Your task to perform on an android device: Open Chrome and go to the settings page Image 0: 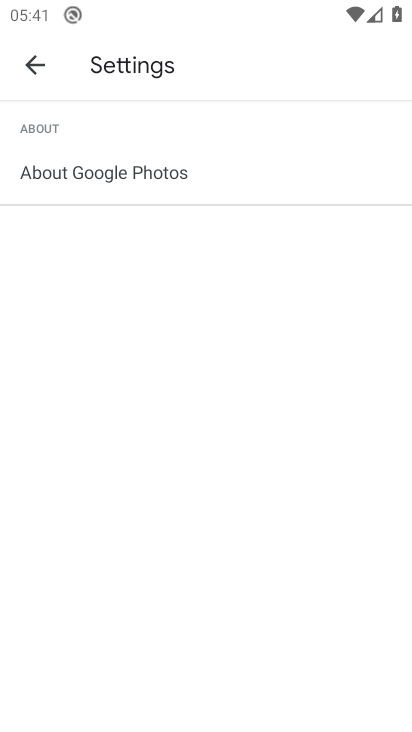
Step 0: drag from (296, 682) to (235, 181)
Your task to perform on an android device: Open Chrome and go to the settings page Image 1: 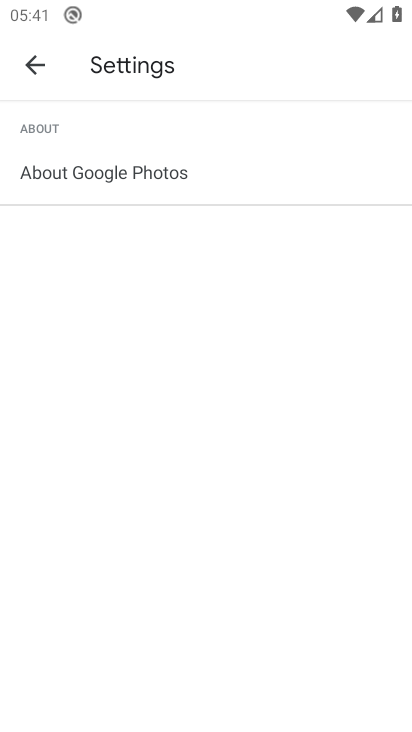
Step 1: click (42, 57)
Your task to perform on an android device: Open Chrome and go to the settings page Image 2: 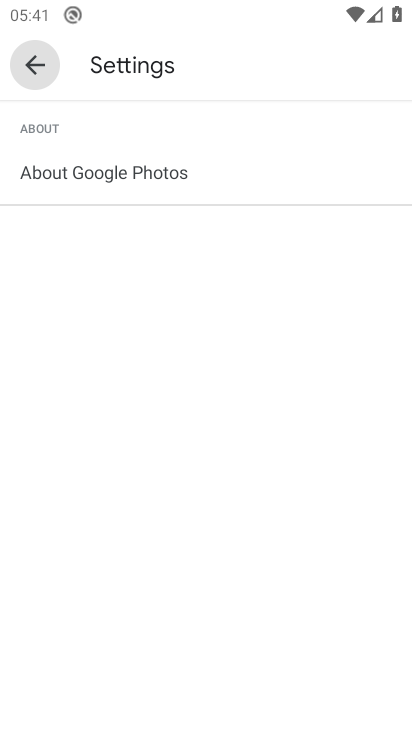
Step 2: click (34, 72)
Your task to perform on an android device: Open Chrome and go to the settings page Image 3: 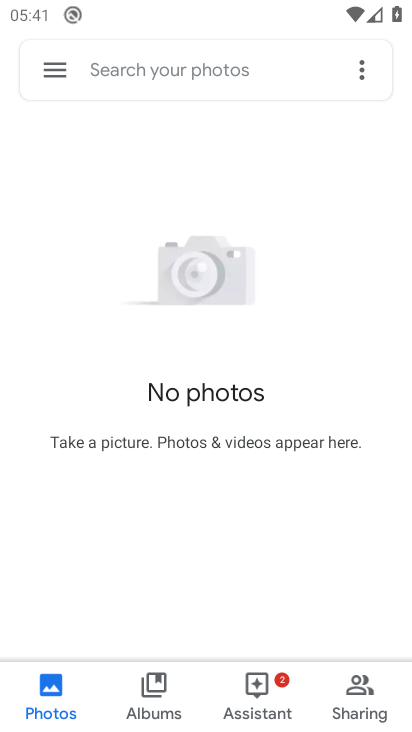
Step 3: press back button
Your task to perform on an android device: Open Chrome and go to the settings page Image 4: 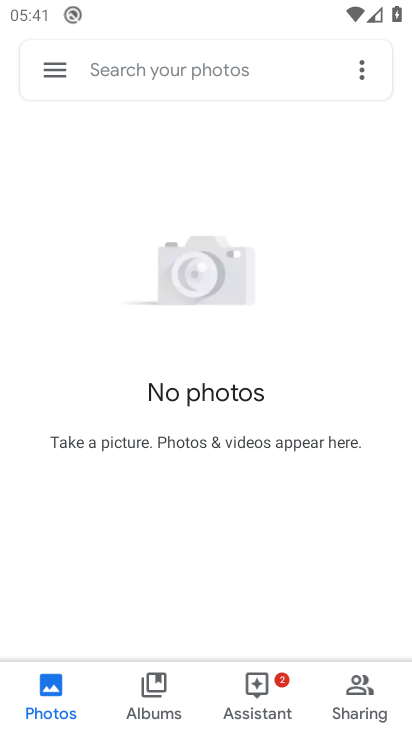
Step 4: press back button
Your task to perform on an android device: Open Chrome and go to the settings page Image 5: 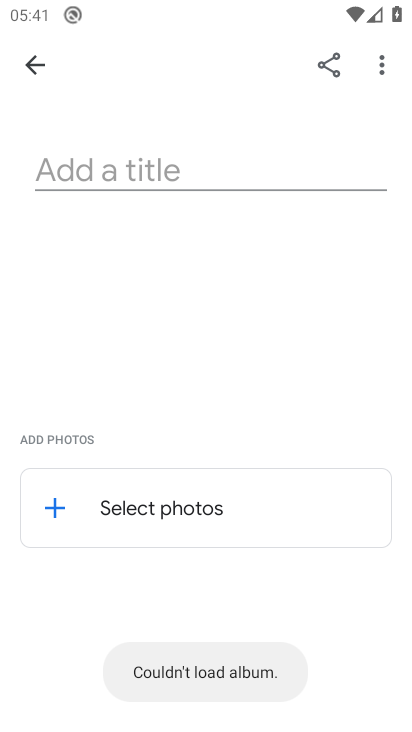
Step 5: press back button
Your task to perform on an android device: Open Chrome and go to the settings page Image 6: 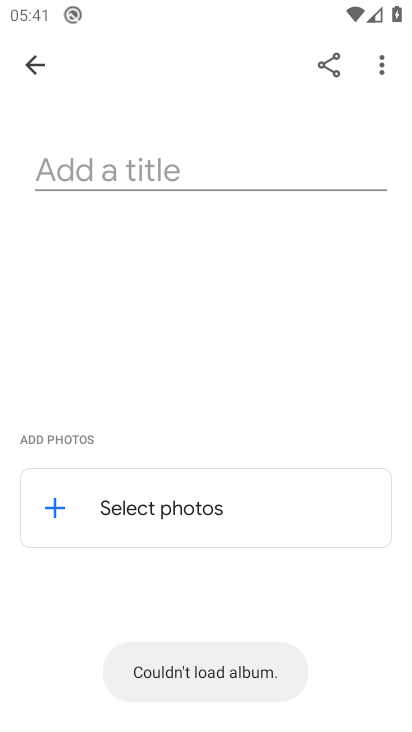
Step 6: press home button
Your task to perform on an android device: Open Chrome and go to the settings page Image 7: 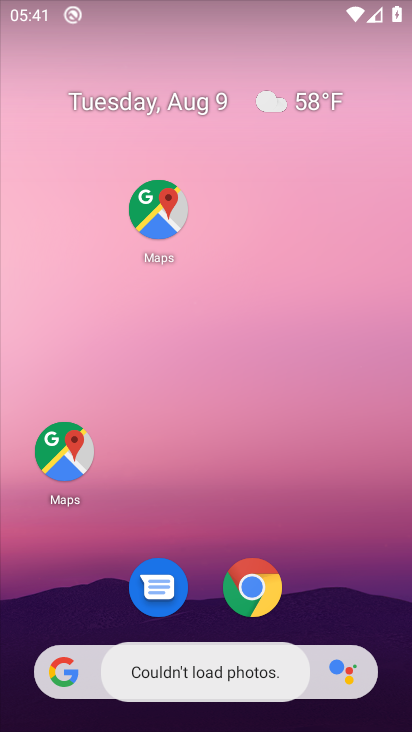
Step 7: drag from (126, 216) to (103, 19)
Your task to perform on an android device: Open Chrome and go to the settings page Image 8: 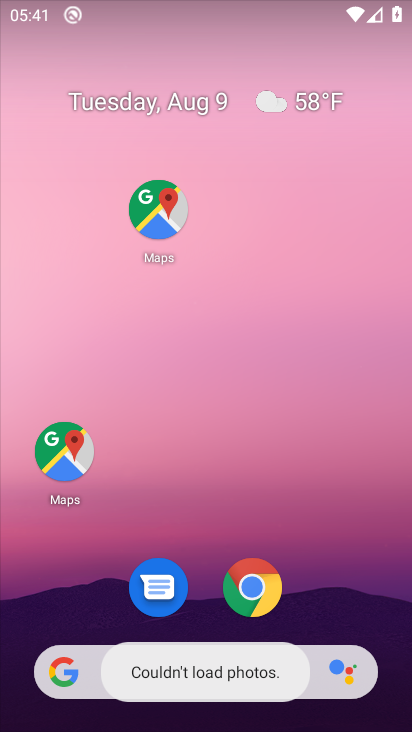
Step 8: drag from (156, 507) to (105, 151)
Your task to perform on an android device: Open Chrome and go to the settings page Image 9: 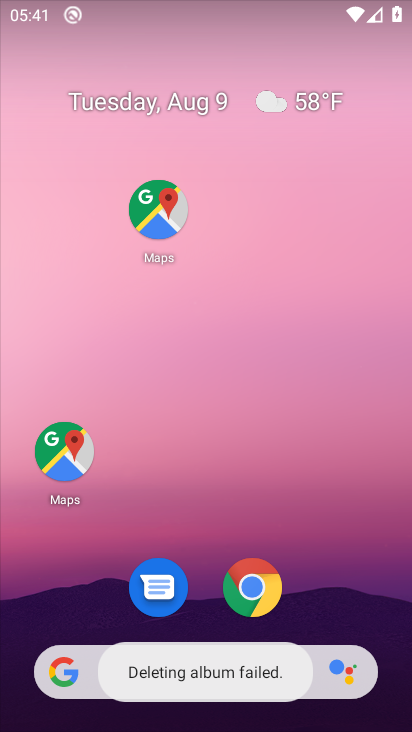
Step 9: drag from (202, 634) to (149, 336)
Your task to perform on an android device: Open Chrome and go to the settings page Image 10: 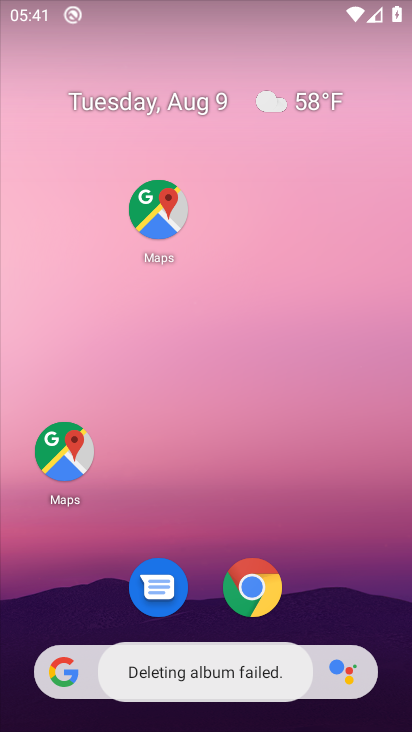
Step 10: drag from (230, 572) to (170, 146)
Your task to perform on an android device: Open Chrome and go to the settings page Image 11: 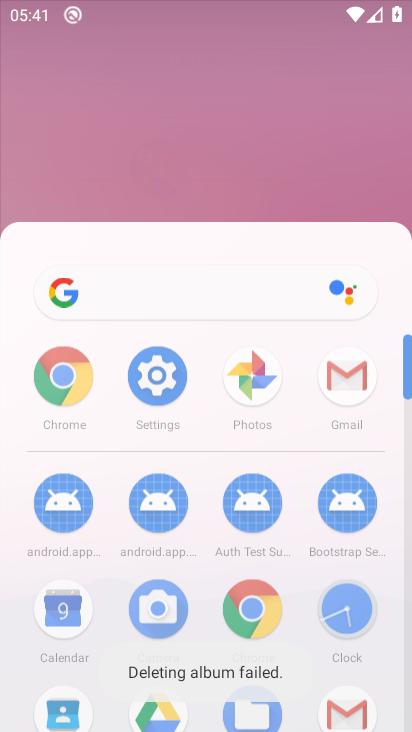
Step 11: drag from (218, 516) to (232, 231)
Your task to perform on an android device: Open Chrome and go to the settings page Image 12: 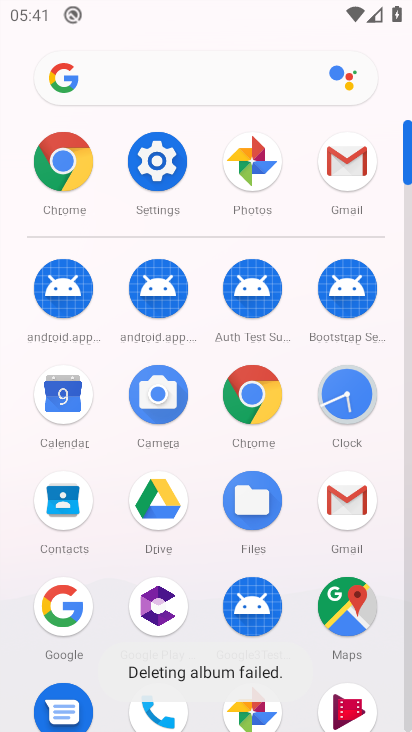
Step 12: click (163, 164)
Your task to perform on an android device: Open Chrome and go to the settings page Image 13: 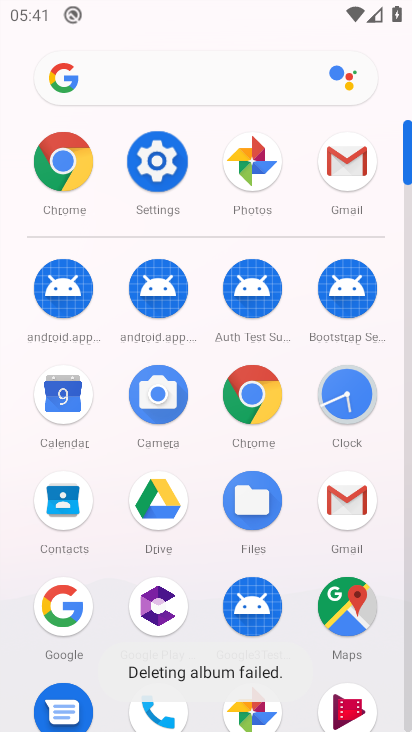
Step 13: click (163, 164)
Your task to perform on an android device: Open Chrome and go to the settings page Image 14: 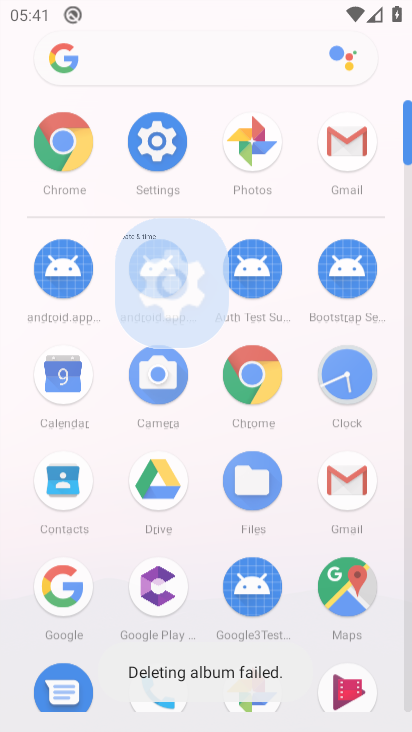
Step 14: click (169, 170)
Your task to perform on an android device: Open Chrome and go to the settings page Image 15: 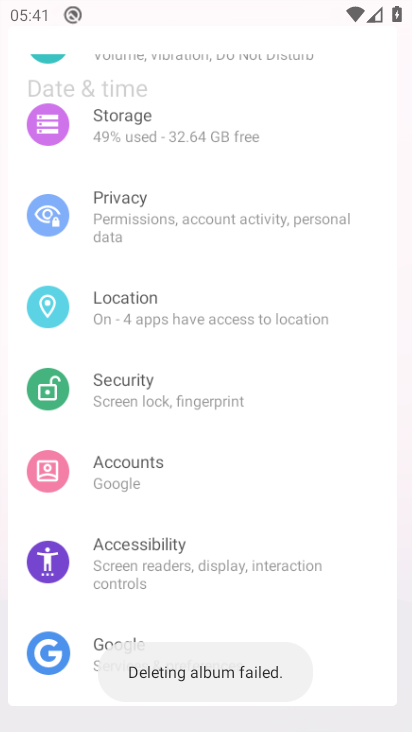
Step 15: click (171, 172)
Your task to perform on an android device: Open Chrome and go to the settings page Image 16: 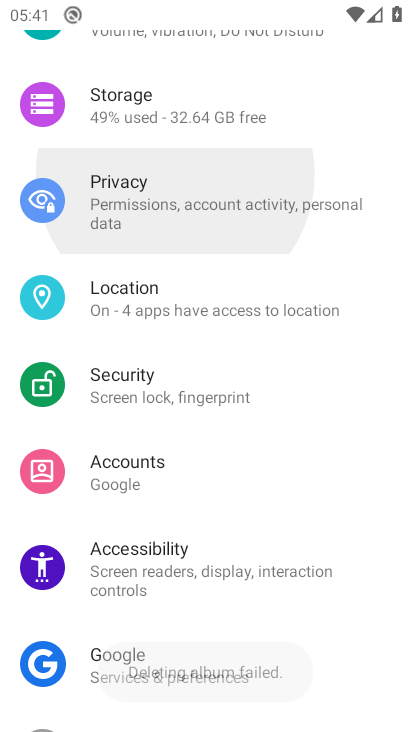
Step 16: click (178, 175)
Your task to perform on an android device: Open Chrome and go to the settings page Image 17: 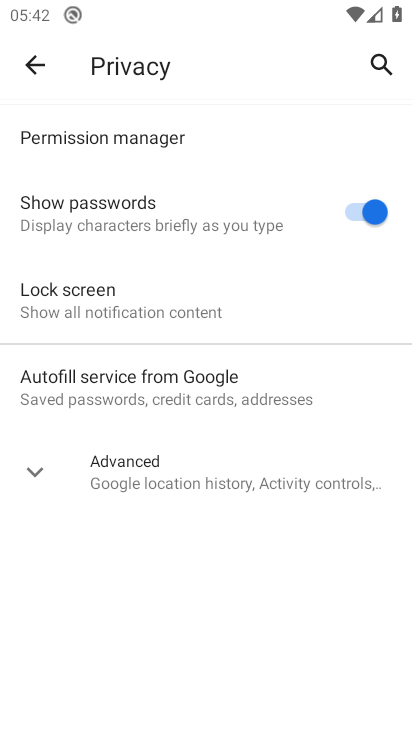
Step 17: press back button
Your task to perform on an android device: Open Chrome and go to the settings page Image 18: 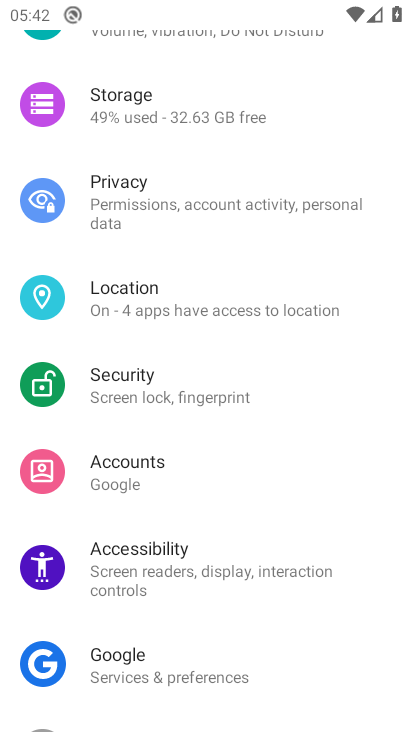
Step 18: drag from (123, 159) to (85, 588)
Your task to perform on an android device: Open Chrome and go to the settings page Image 19: 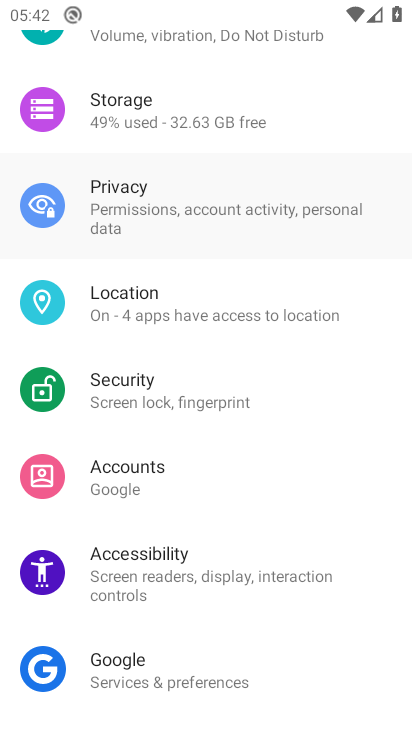
Step 19: drag from (137, 258) to (177, 521)
Your task to perform on an android device: Open Chrome and go to the settings page Image 20: 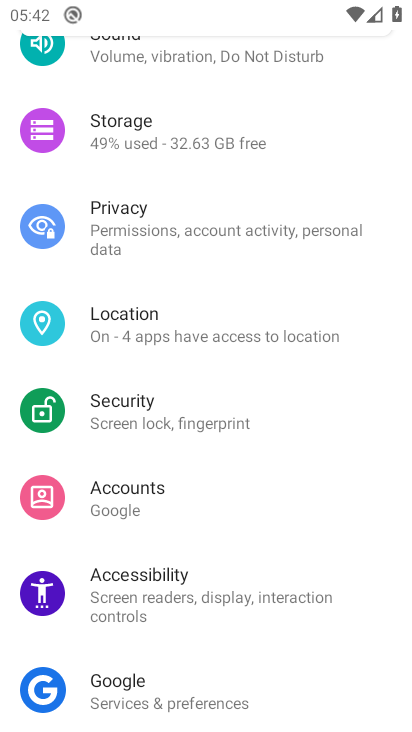
Step 20: drag from (102, 142) to (171, 652)
Your task to perform on an android device: Open Chrome and go to the settings page Image 21: 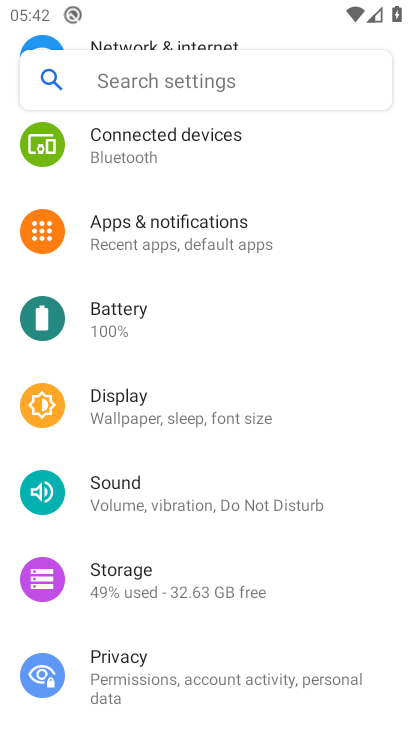
Step 21: press back button
Your task to perform on an android device: Open Chrome and go to the settings page Image 22: 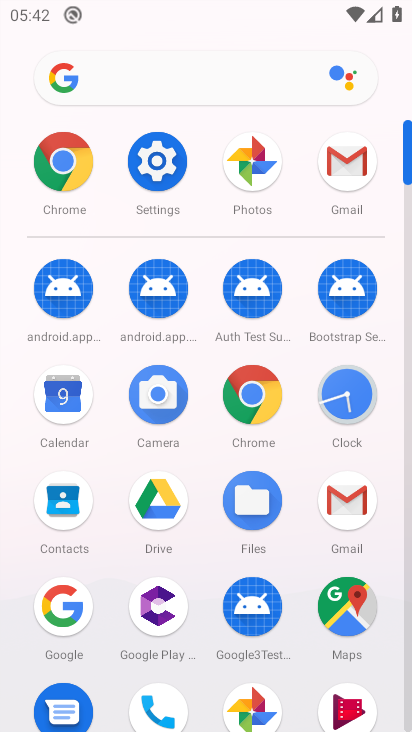
Step 22: press home button
Your task to perform on an android device: Open Chrome and go to the settings page Image 23: 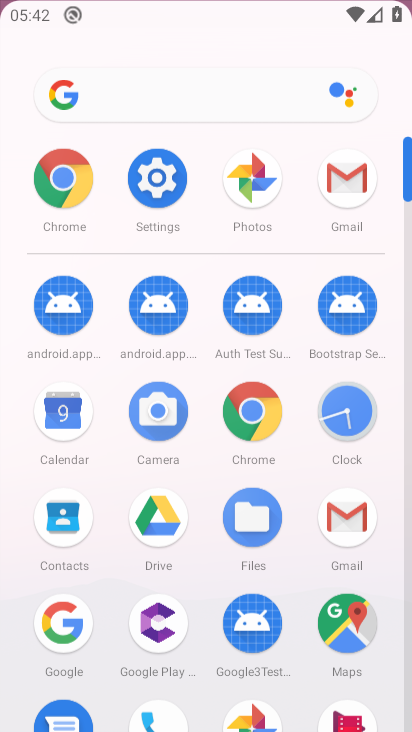
Step 23: press back button
Your task to perform on an android device: Open Chrome and go to the settings page Image 24: 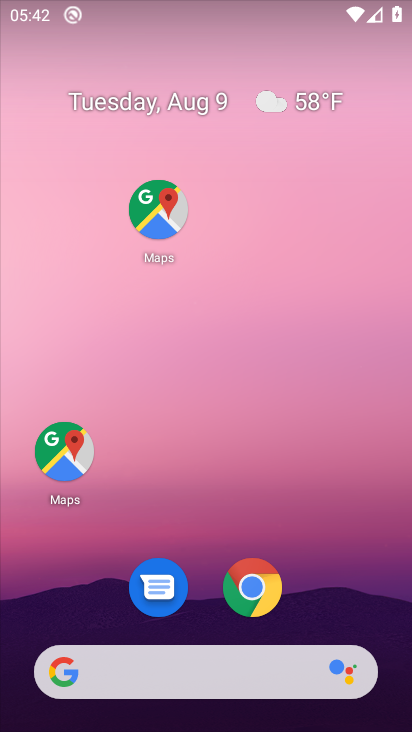
Step 24: click (256, 406)
Your task to perform on an android device: Open Chrome and go to the settings page Image 25: 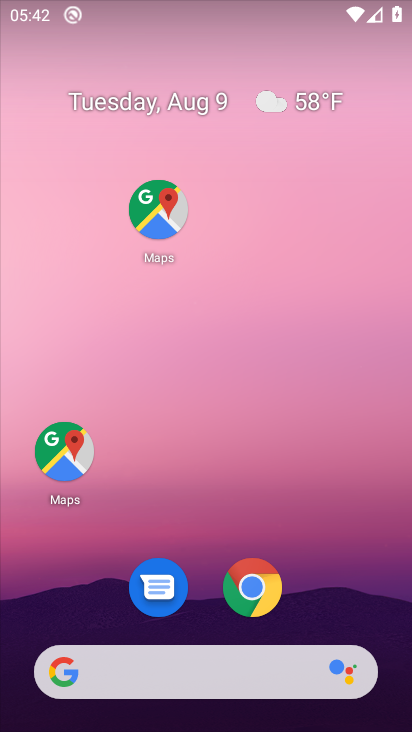
Step 25: click (256, 406)
Your task to perform on an android device: Open Chrome and go to the settings page Image 26: 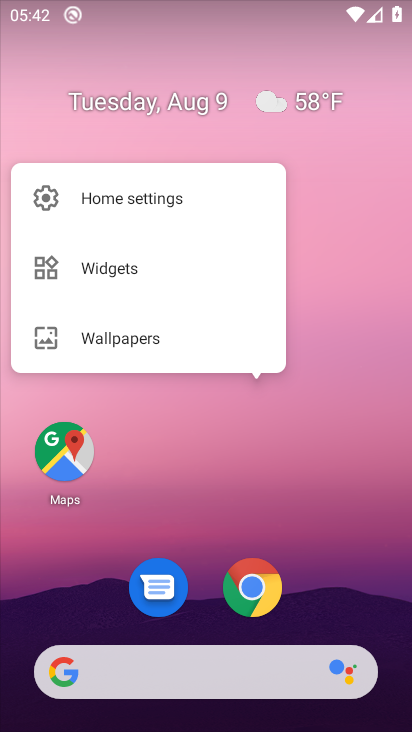
Step 26: click (253, 584)
Your task to perform on an android device: Open Chrome and go to the settings page Image 27: 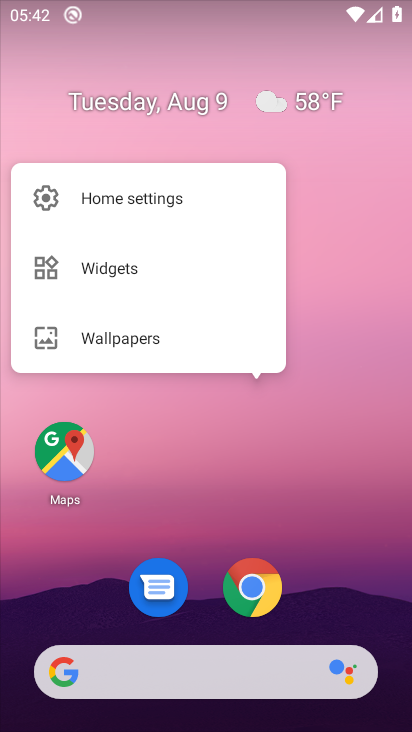
Step 27: click (253, 584)
Your task to perform on an android device: Open Chrome and go to the settings page Image 28: 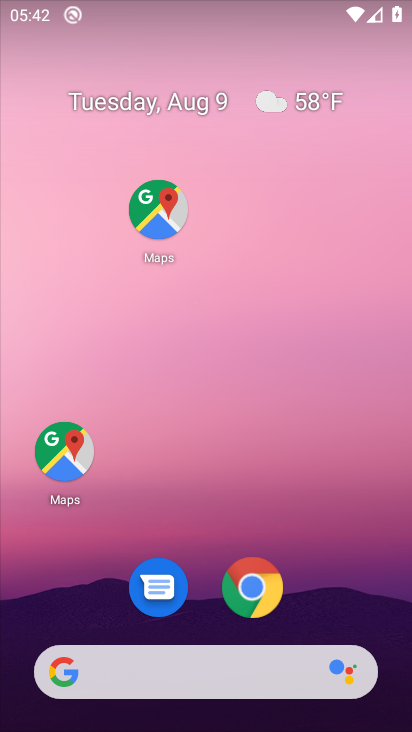
Step 28: click (253, 583)
Your task to perform on an android device: Open Chrome and go to the settings page Image 29: 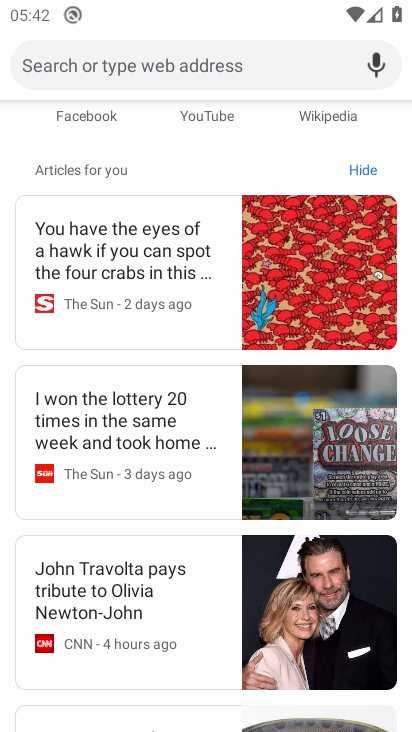
Step 29: task complete